Your task to perform on an android device: Go to Wikipedia Image 0: 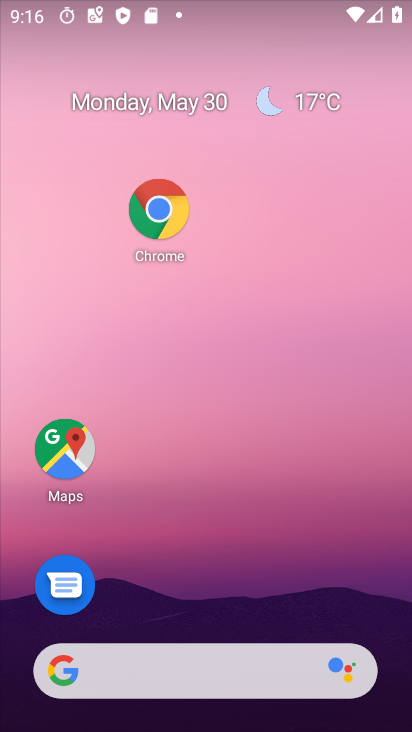
Step 0: click (282, 199)
Your task to perform on an android device: Go to Wikipedia Image 1: 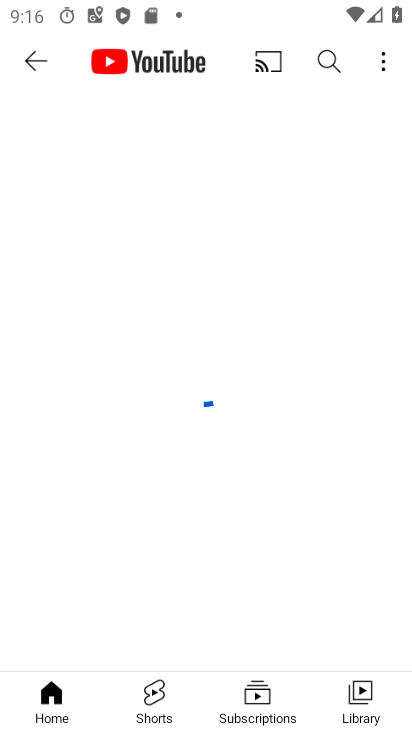
Step 1: click (335, 92)
Your task to perform on an android device: Go to Wikipedia Image 2: 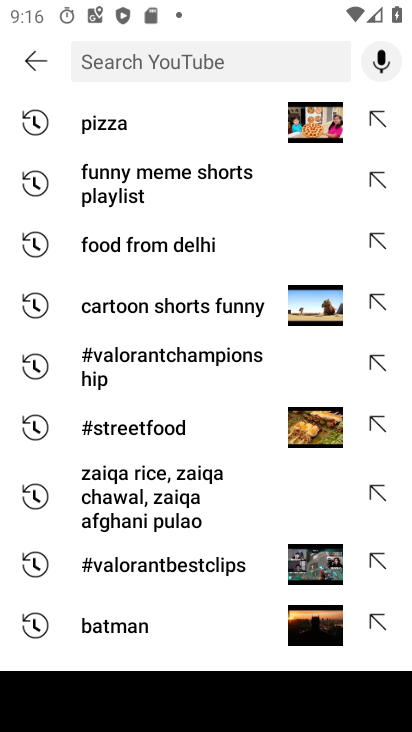
Step 2: press home button
Your task to perform on an android device: Go to Wikipedia Image 3: 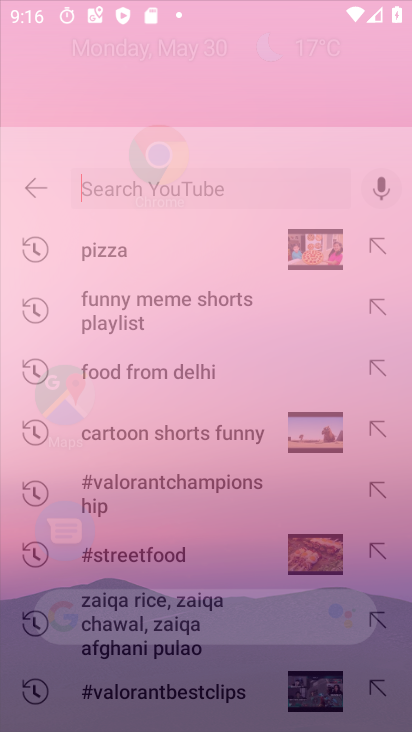
Step 3: drag from (212, 494) to (240, 102)
Your task to perform on an android device: Go to Wikipedia Image 4: 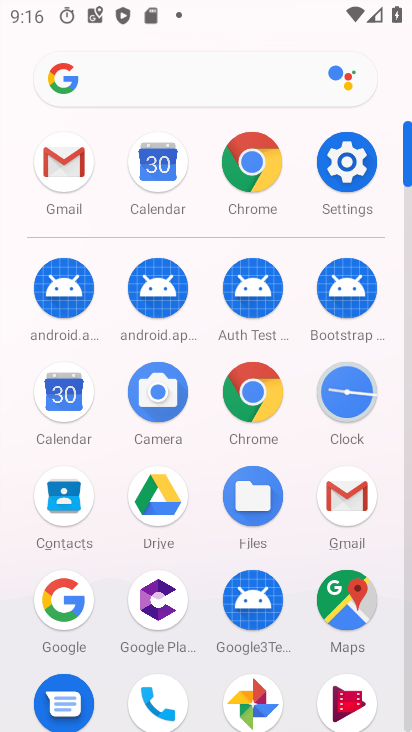
Step 4: click (180, 90)
Your task to perform on an android device: Go to Wikipedia Image 5: 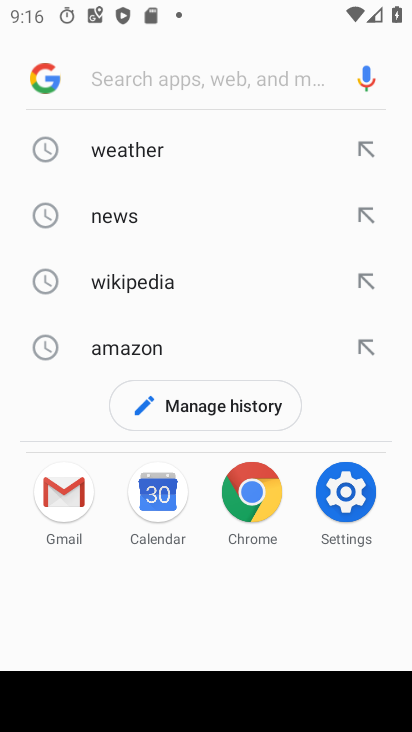
Step 5: click (151, 273)
Your task to perform on an android device: Go to Wikipedia Image 6: 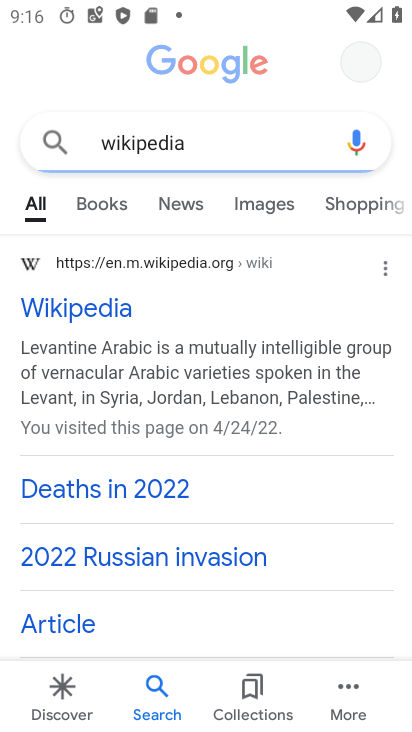
Step 6: drag from (188, 477) to (296, 190)
Your task to perform on an android device: Go to Wikipedia Image 7: 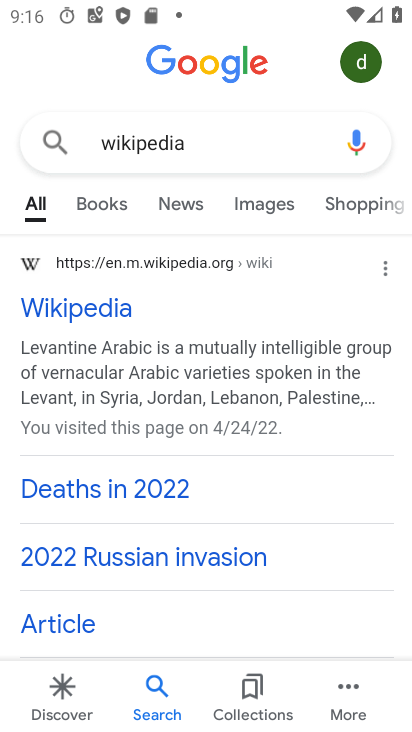
Step 7: drag from (157, 358) to (250, 645)
Your task to perform on an android device: Go to Wikipedia Image 8: 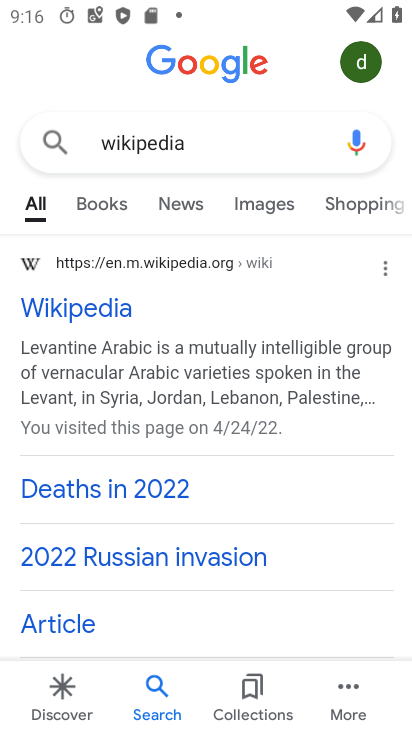
Step 8: click (62, 310)
Your task to perform on an android device: Go to Wikipedia Image 9: 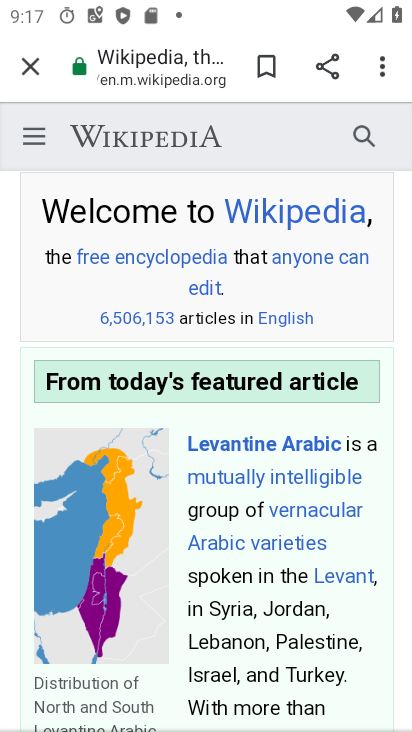
Step 9: task complete